Your task to perform on an android device: open app "The Home Depot" Image 0: 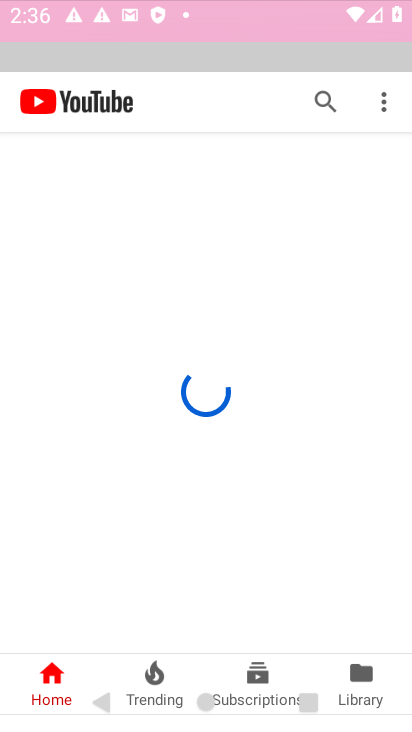
Step 0: drag from (200, 593) to (180, 59)
Your task to perform on an android device: open app "The Home Depot" Image 1: 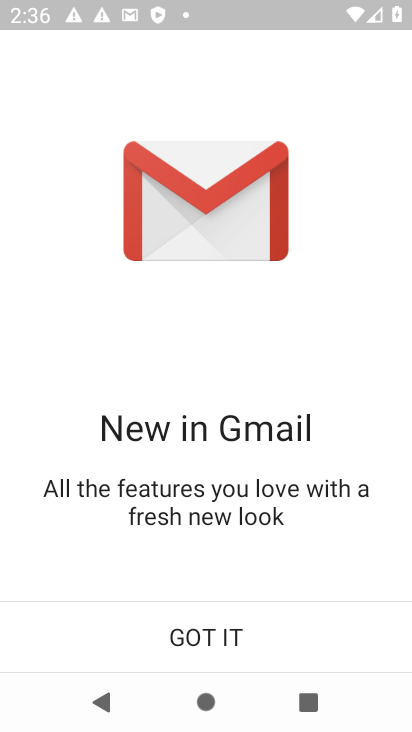
Step 1: press home button
Your task to perform on an android device: open app "The Home Depot" Image 2: 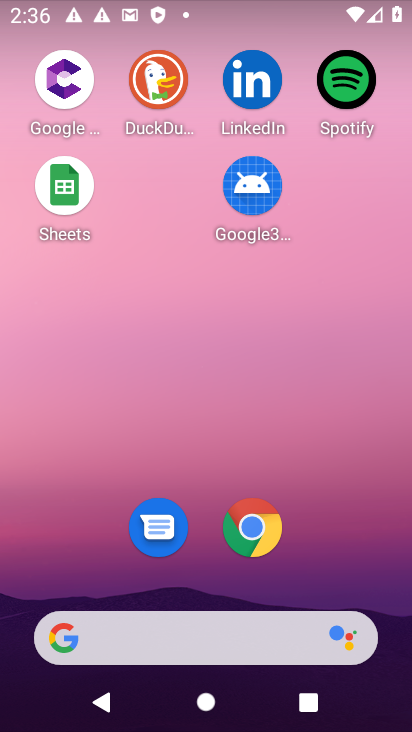
Step 2: drag from (129, 587) to (126, 299)
Your task to perform on an android device: open app "The Home Depot" Image 3: 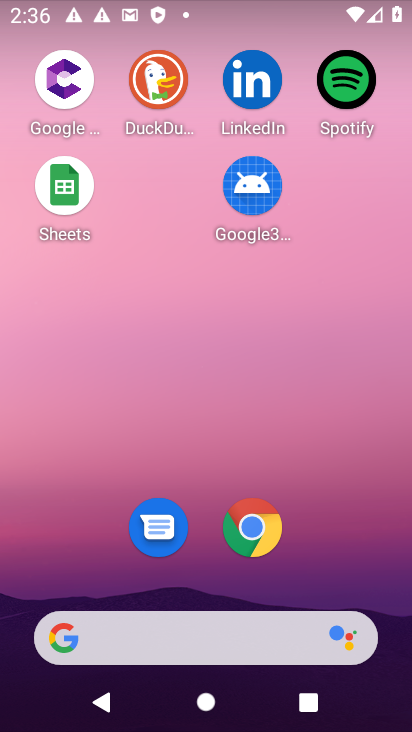
Step 3: drag from (126, 299) to (128, 101)
Your task to perform on an android device: open app "The Home Depot" Image 4: 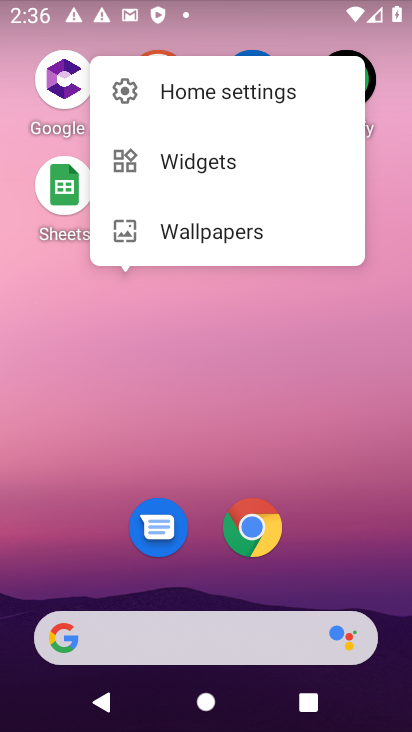
Step 4: click (82, 461)
Your task to perform on an android device: open app "The Home Depot" Image 5: 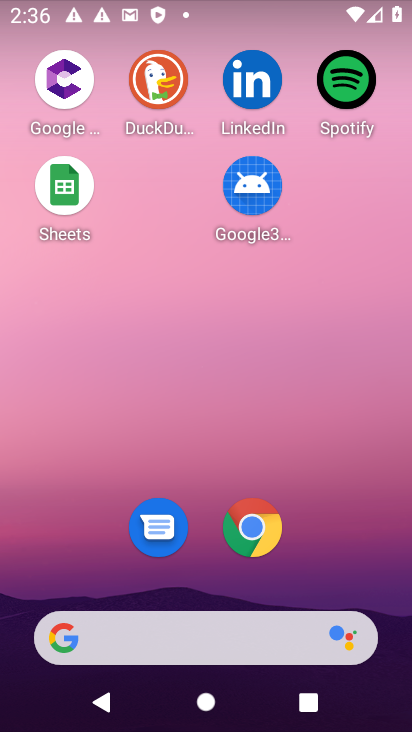
Step 5: drag from (107, 599) to (143, 237)
Your task to perform on an android device: open app "The Home Depot" Image 6: 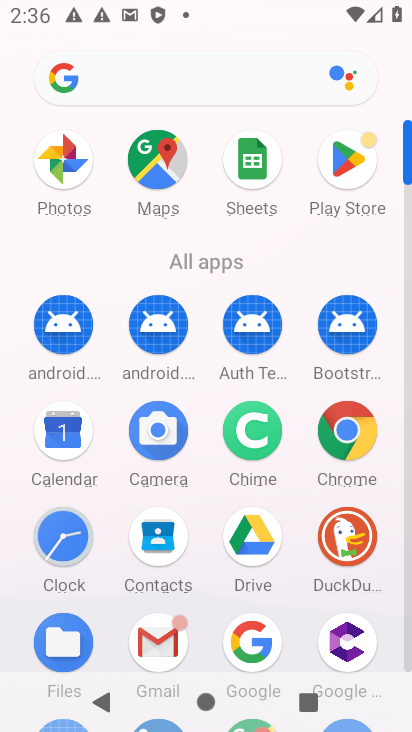
Step 6: click (343, 165)
Your task to perform on an android device: open app "The Home Depot" Image 7: 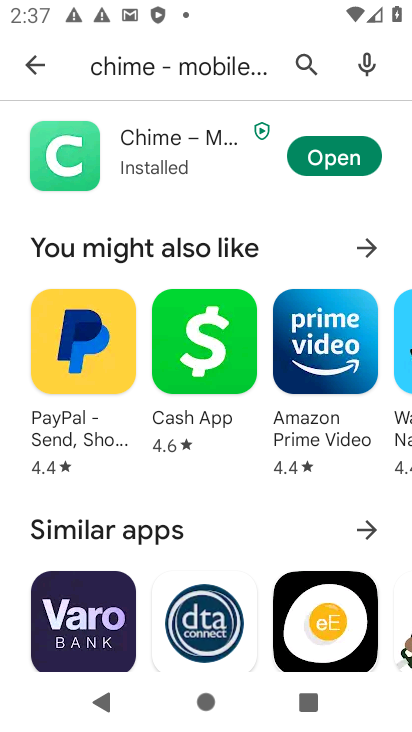
Step 7: click (298, 56)
Your task to perform on an android device: open app "The Home Depot" Image 8: 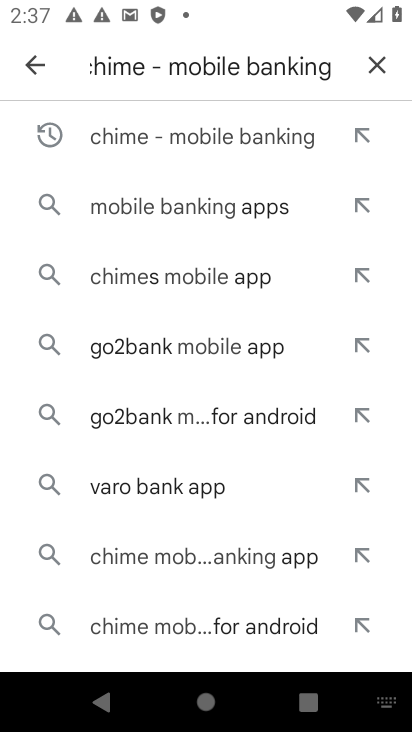
Step 8: click (377, 67)
Your task to perform on an android device: open app "The Home Depot" Image 9: 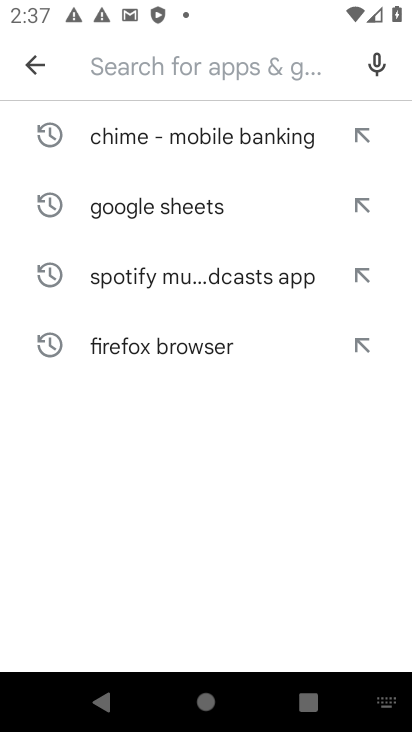
Step 9: type "the home depot"
Your task to perform on an android device: open app "The Home Depot" Image 10: 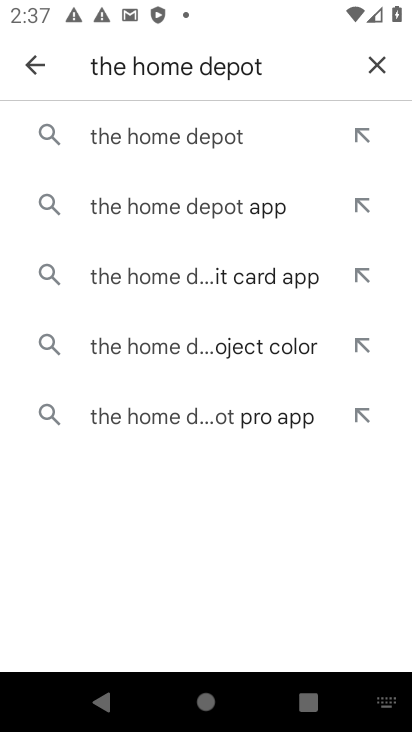
Step 10: click (89, 134)
Your task to perform on an android device: open app "The Home Depot" Image 11: 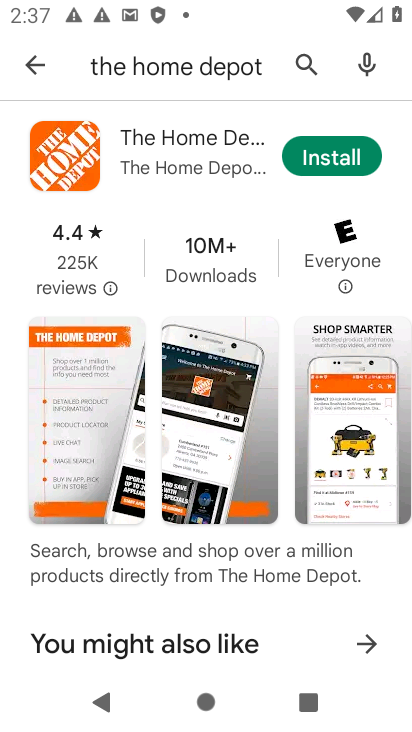
Step 11: task complete